Your task to perform on an android device: turn off notifications settings in the gmail app Image 0: 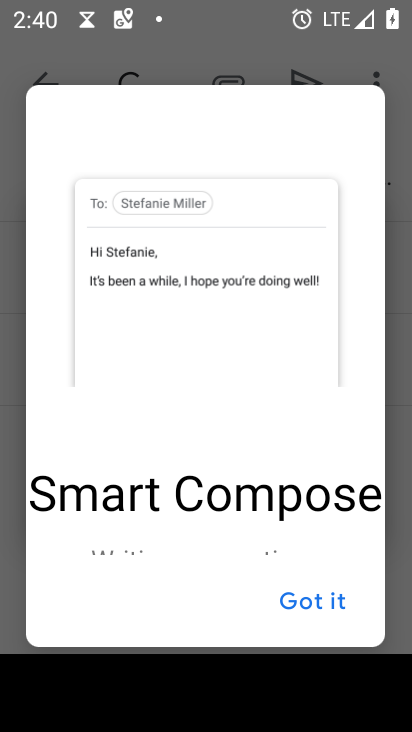
Step 0: press back button
Your task to perform on an android device: turn off notifications settings in the gmail app Image 1: 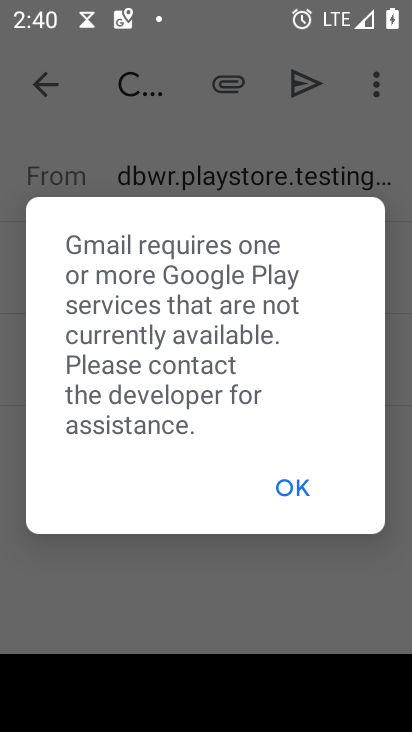
Step 1: press back button
Your task to perform on an android device: turn off notifications settings in the gmail app Image 2: 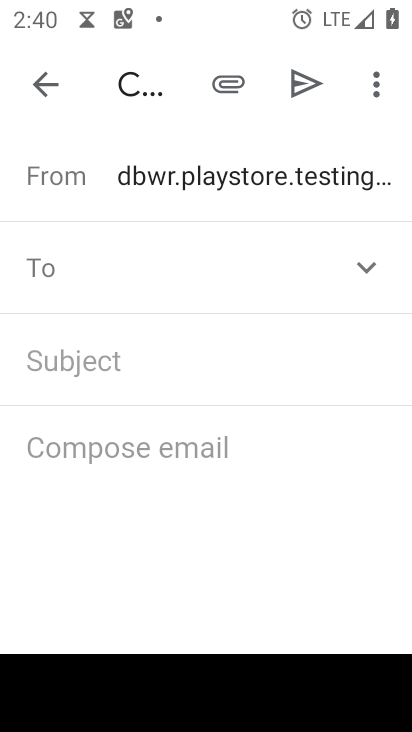
Step 2: press home button
Your task to perform on an android device: turn off notifications settings in the gmail app Image 3: 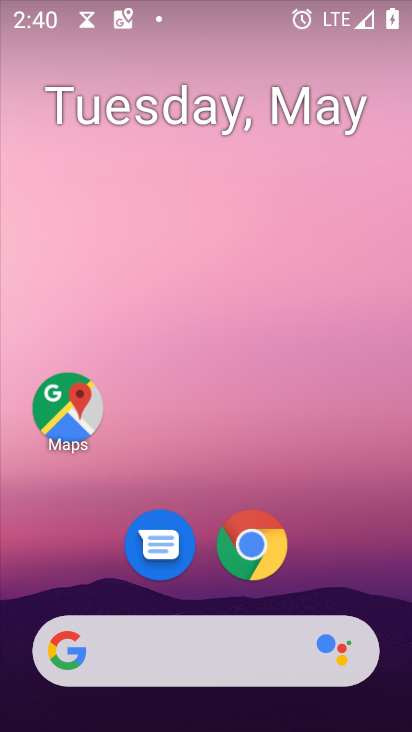
Step 3: drag from (375, 585) to (256, 23)
Your task to perform on an android device: turn off notifications settings in the gmail app Image 4: 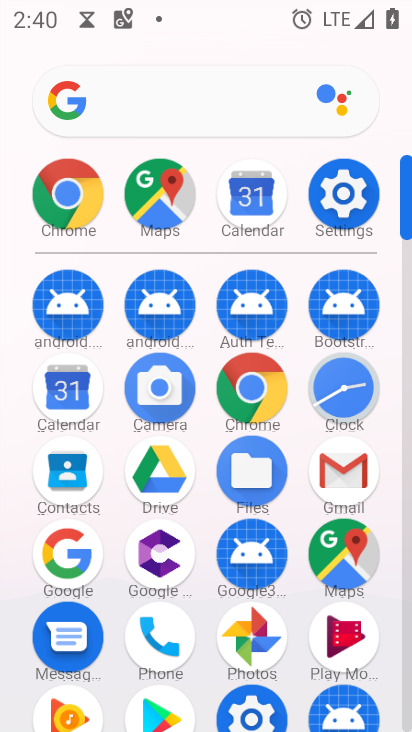
Step 4: drag from (2, 559) to (7, 302)
Your task to perform on an android device: turn off notifications settings in the gmail app Image 5: 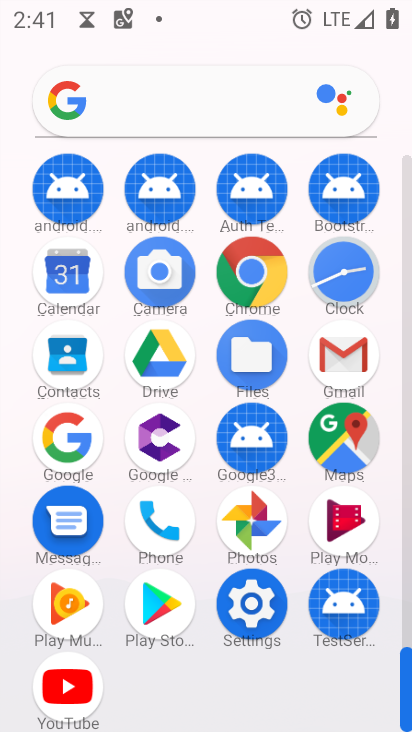
Step 5: click (251, 601)
Your task to perform on an android device: turn off notifications settings in the gmail app Image 6: 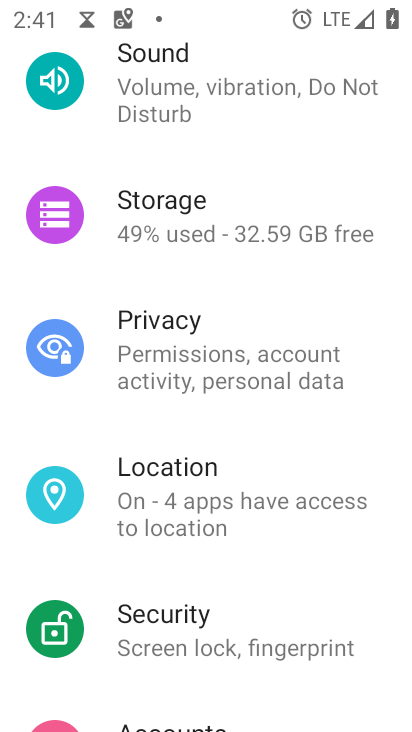
Step 6: drag from (269, 146) to (281, 573)
Your task to perform on an android device: turn off notifications settings in the gmail app Image 7: 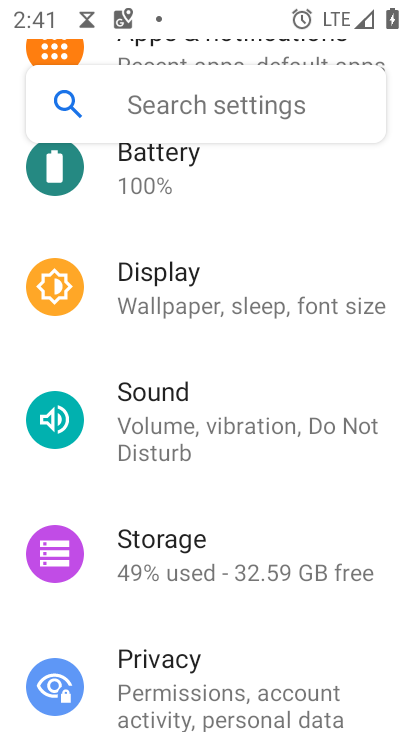
Step 7: drag from (285, 218) to (284, 624)
Your task to perform on an android device: turn off notifications settings in the gmail app Image 8: 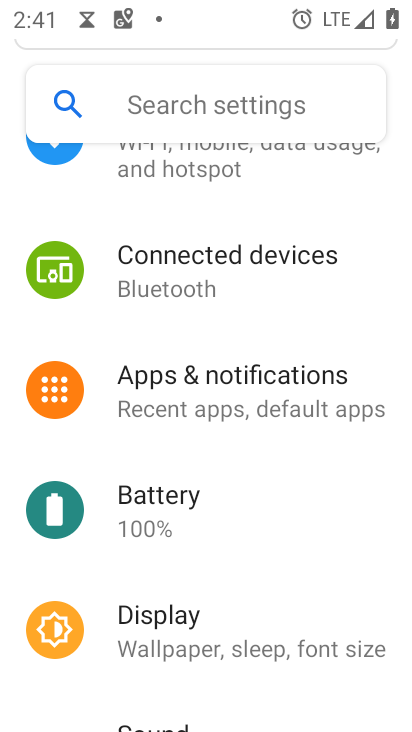
Step 8: drag from (273, 318) to (270, 619)
Your task to perform on an android device: turn off notifications settings in the gmail app Image 9: 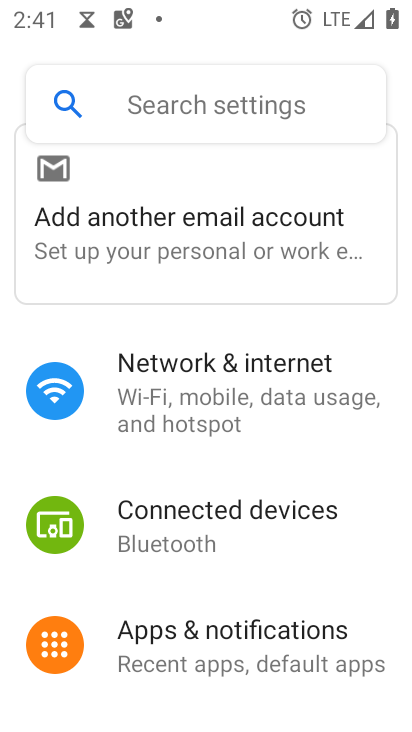
Step 9: click (236, 632)
Your task to perform on an android device: turn off notifications settings in the gmail app Image 10: 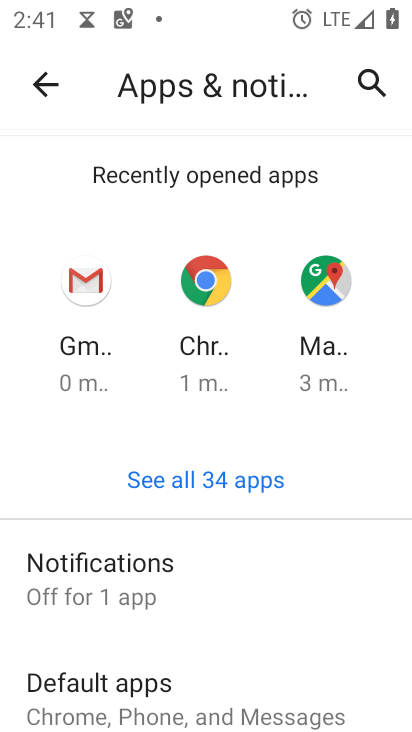
Step 10: drag from (303, 607) to (286, 228)
Your task to perform on an android device: turn off notifications settings in the gmail app Image 11: 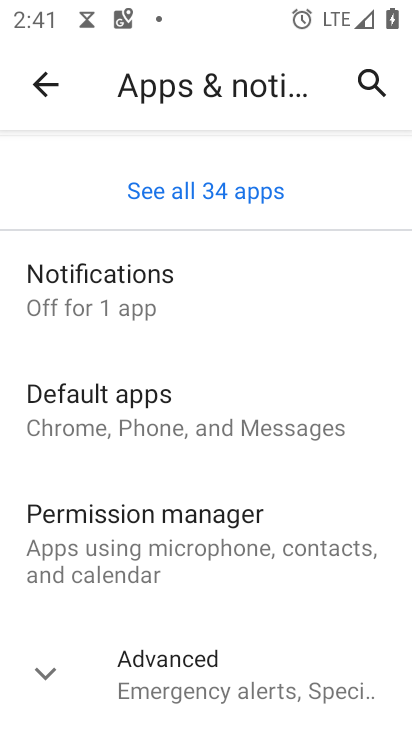
Step 11: click (155, 293)
Your task to perform on an android device: turn off notifications settings in the gmail app Image 12: 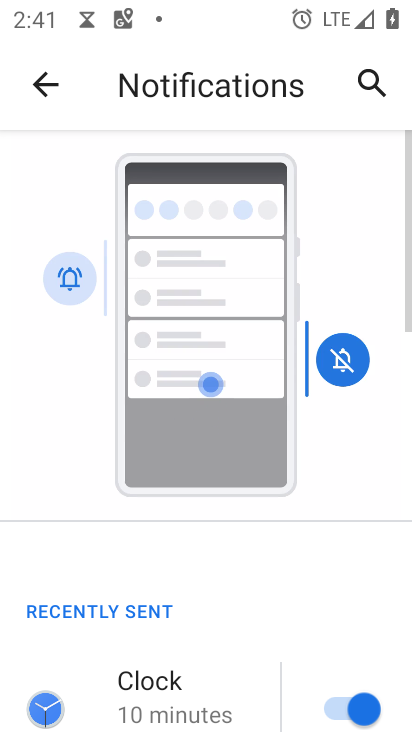
Step 12: drag from (248, 666) to (287, 177)
Your task to perform on an android device: turn off notifications settings in the gmail app Image 13: 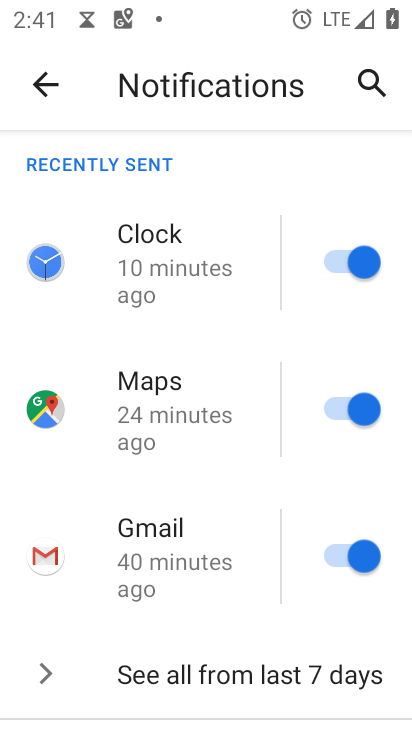
Step 13: drag from (211, 554) to (235, 158)
Your task to perform on an android device: turn off notifications settings in the gmail app Image 14: 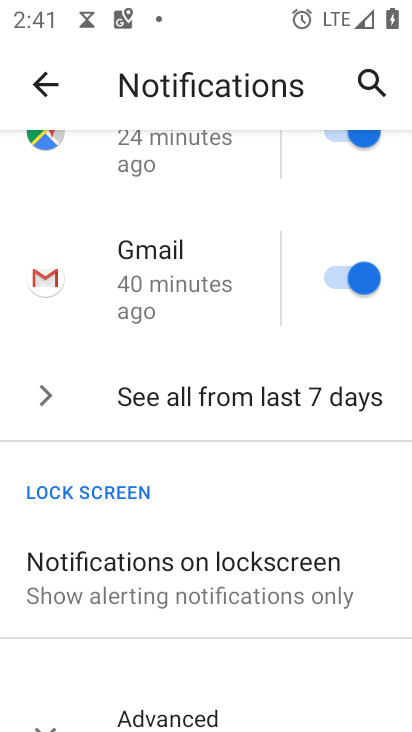
Step 14: drag from (207, 669) to (219, 210)
Your task to perform on an android device: turn off notifications settings in the gmail app Image 15: 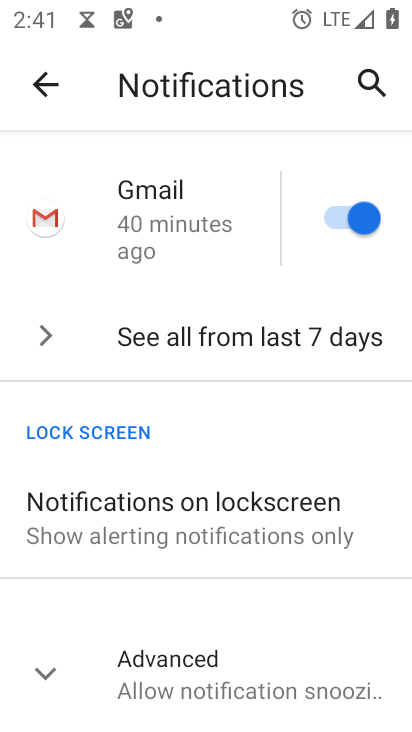
Step 15: click (50, 673)
Your task to perform on an android device: turn off notifications settings in the gmail app Image 16: 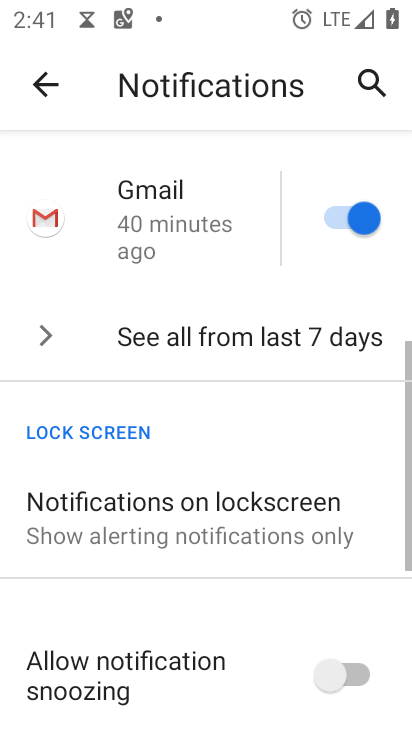
Step 16: drag from (270, 637) to (265, 224)
Your task to perform on an android device: turn off notifications settings in the gmail app Image 17: 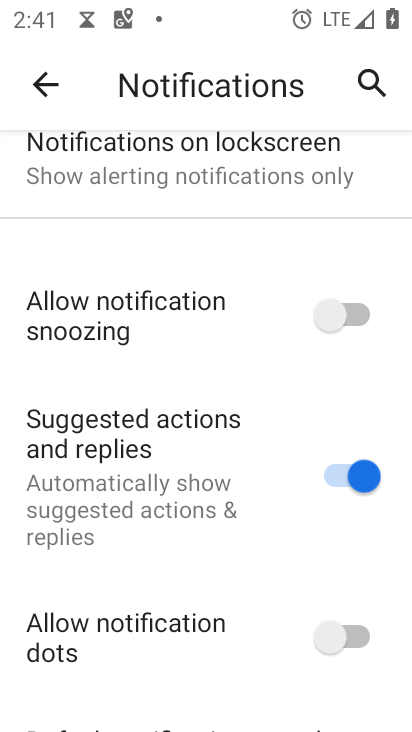
Step 17: drag from (164, 582) to (203, 221)
Your task to perform on an android device: turn off notifications settings in the gmail app Image 18: 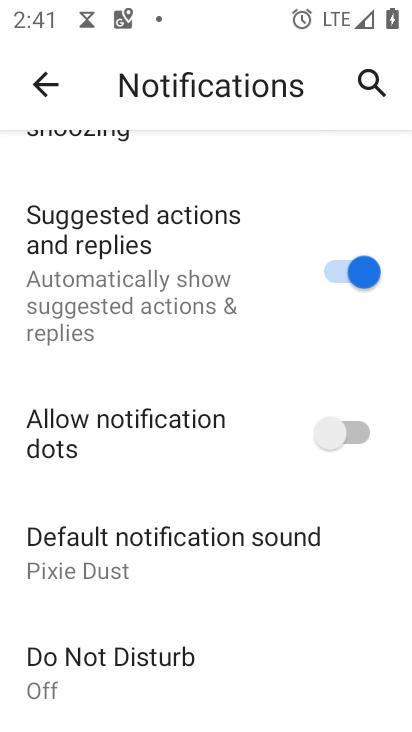
Step 18: drag from (217, 240) to (197, 581)
Your task to perform on an android device: turn off notifications settings in the gmail app Image 19: 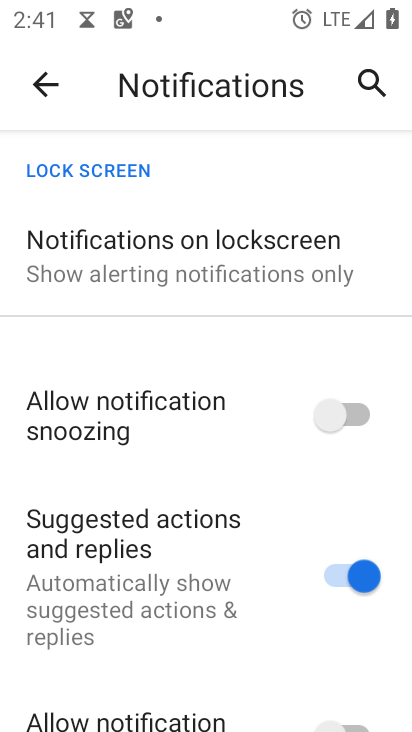
Step 19: click (214, 367)
Your task to perform on an android device: turn off notifications settings in the gmail app Image 20: 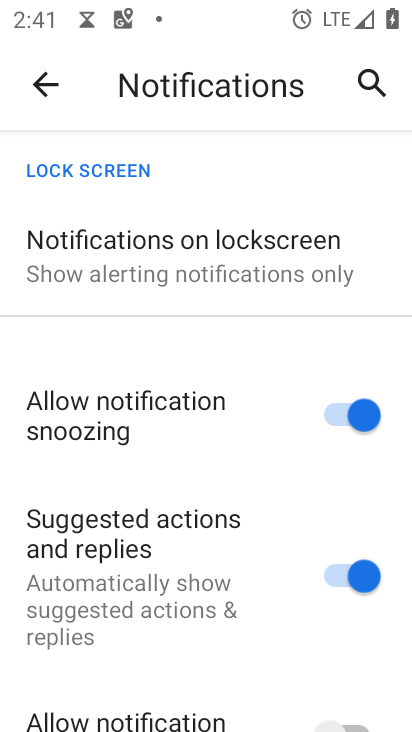
Step 20: click (332, 414)
Your task to perform on an android device: turn off notifications settings in the gmail app Image 21: 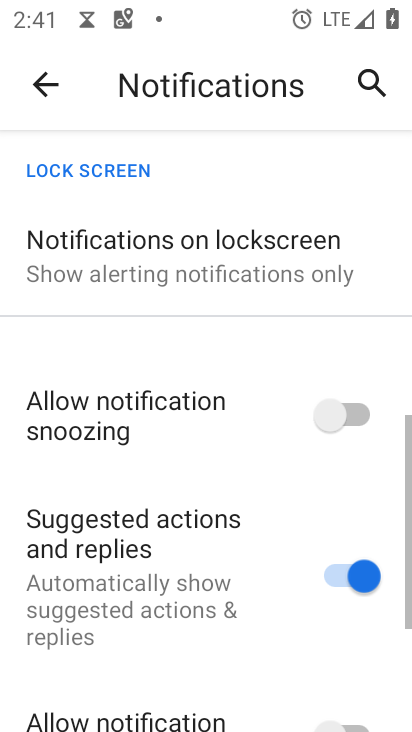
Step 21: drag from (221, 619) to (201, 239)
Your task to perform on an android device: turn off notifications settings in the gmail app Image 22: 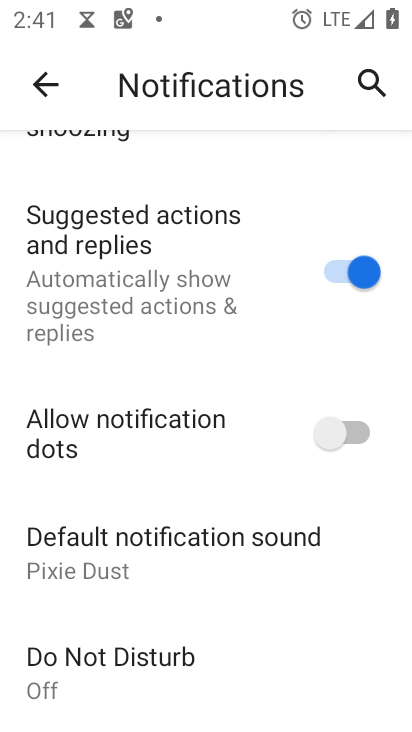
Step 22: drag from (228, 226) to (222, 643)
Your task to perform on an android device: turn off notifications settings in the gmail app Image 23: 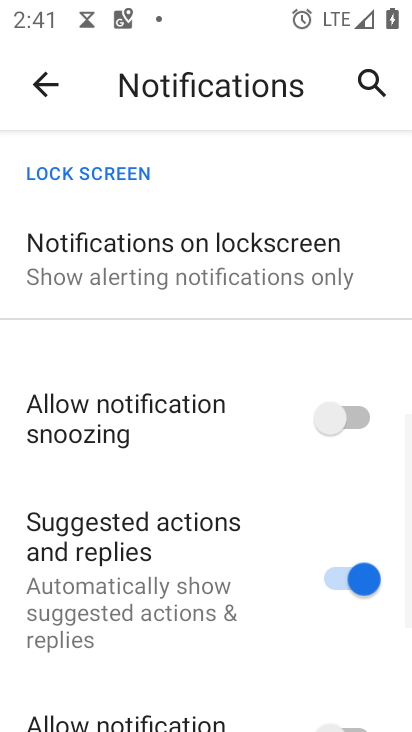
Step 23: drag from (221, 241) to (211, 683)
Your task to perform on an android device: turn off notifications settings in the gmail app Image 24: 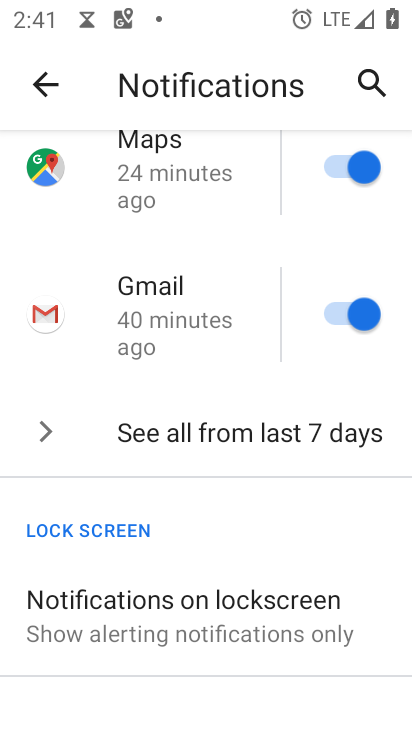
Step 24: click (346, 318)
Your task to perform on an android device: turn off notifications settings in the gmail app Image 25: 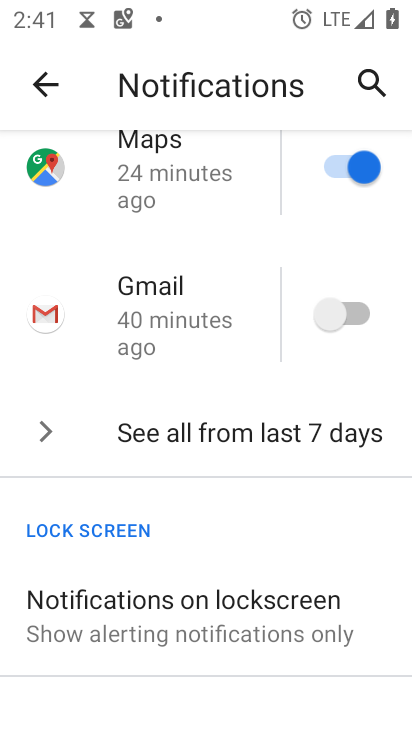
Step 25: task complete